Your task to perform on an android device: Open location settings Image 0: 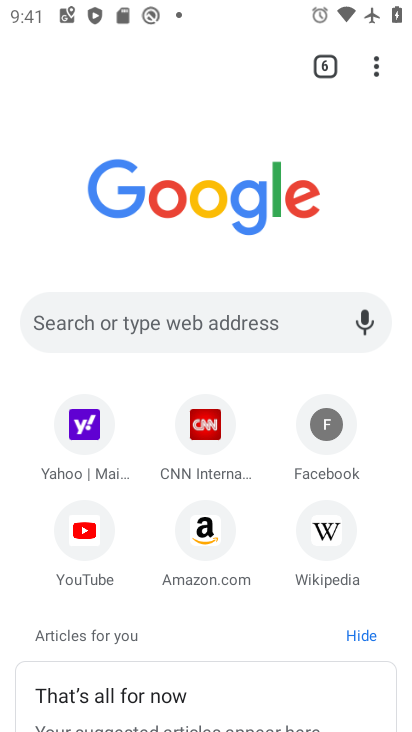
Step 0: press home button
Your task to perform on an android device: Open location settings Image 1: 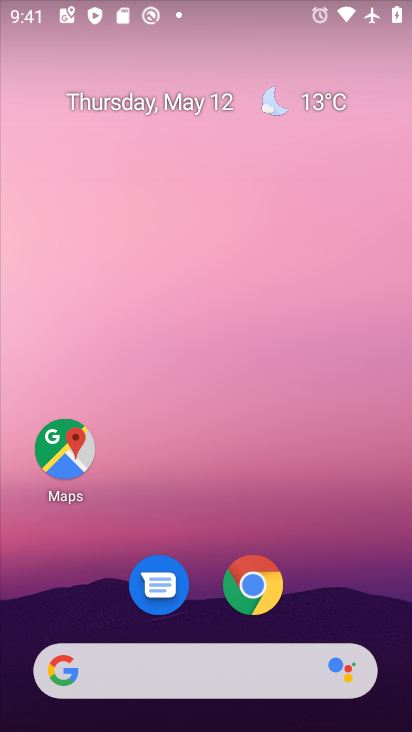
Step 1: drag from (337, 567) to (323, 71)
Your task to perform on an android device: Open location settings Image 2: 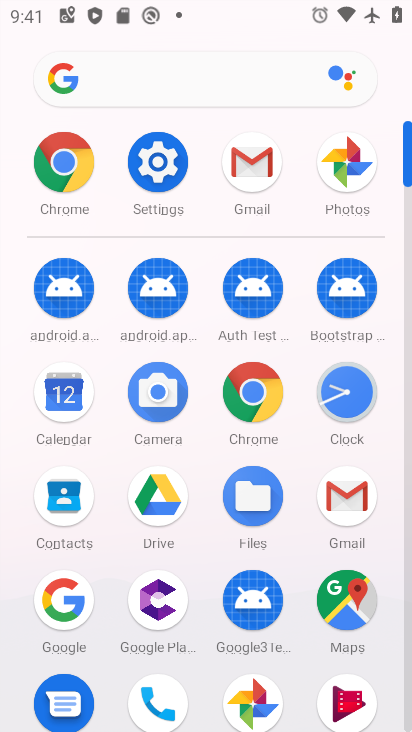
Step 2: click (155, 160)
Your task to perform on an android device: Open location settings Image 3: 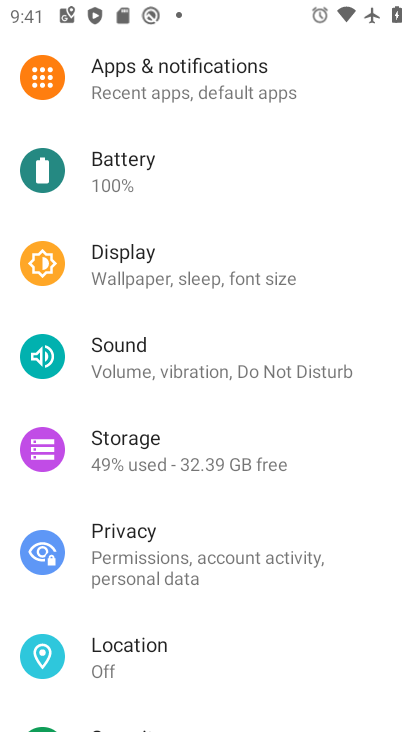
Step 3: click (183, 643)
Your task to perform on an android device: Open location settings Image 4: 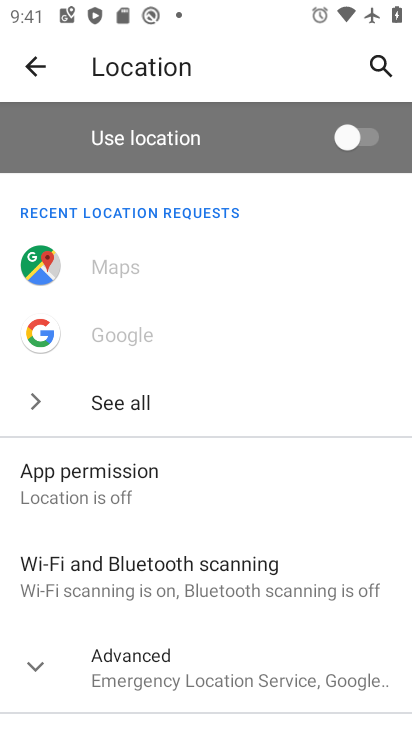
Step 4: task complete